Your task to perform on an android device: When is my next meeting? Image 0: 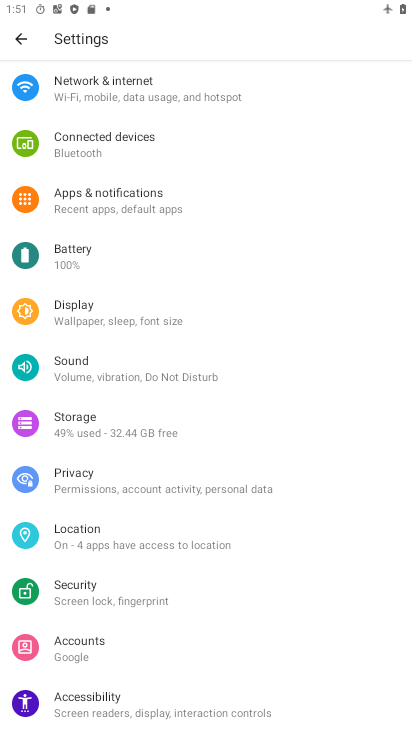
Step 0: press home button
Your task to perform on an android device: When is my next meeting? Image 1: 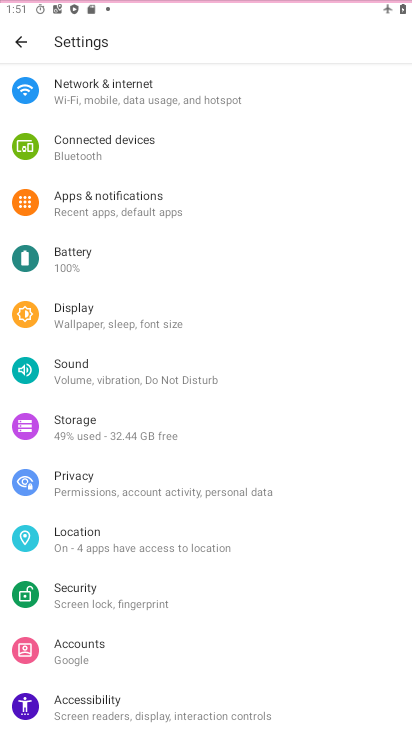
Step 1: drag from (78, 553) to (275, 154)
Your task to perform on an android device: When is my next meeting? Image 2: 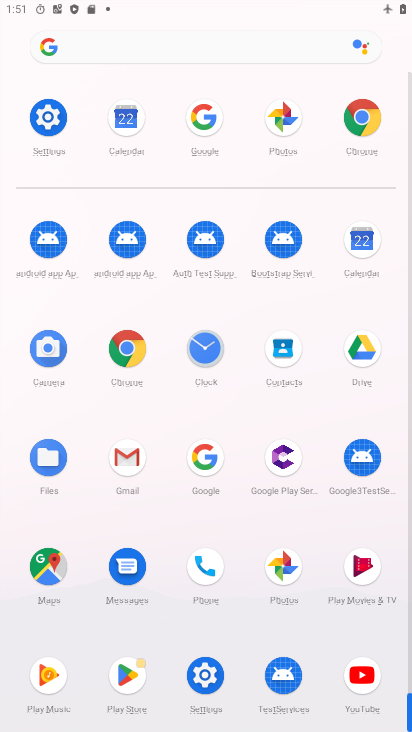
Step 2: click (360, 235)
Your task to perform on an android device: When is my next meeting? Image 3: 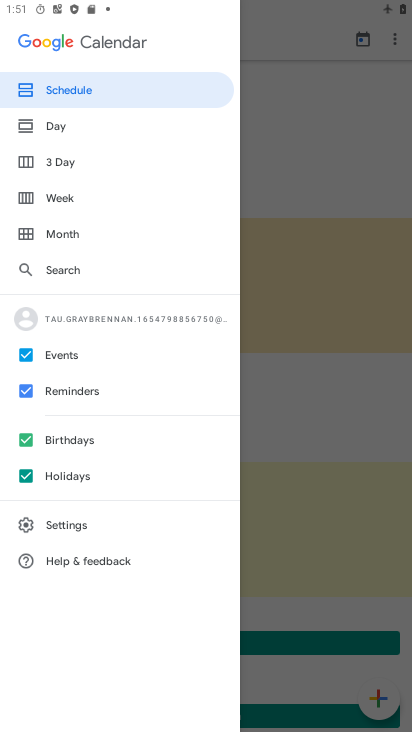
Step 3: click (321, 123)
Your task to perform on an android device: When is my next meeting? Image 4: 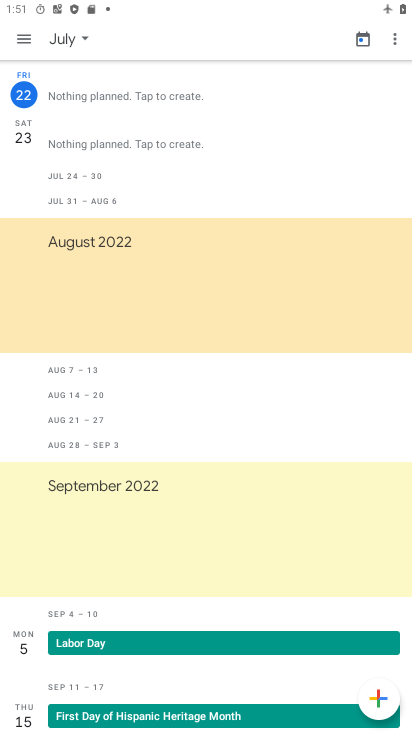
Step 4: click (354, 31)
Your task to perform on an android device: When is my next meeting? Image 5: 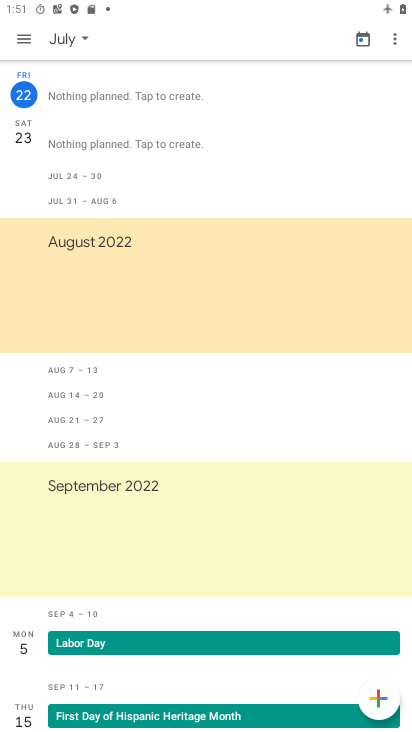
Step 5: click (78, 39)
Your task to perform on an android device: When is my next meeting? Image 6: 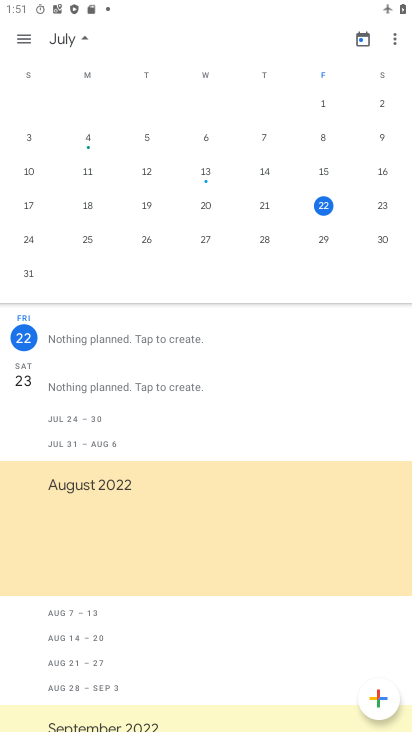
Step 6: click (321, 202)
Your task to perform on an android device: When is my next meeting? Image 7: 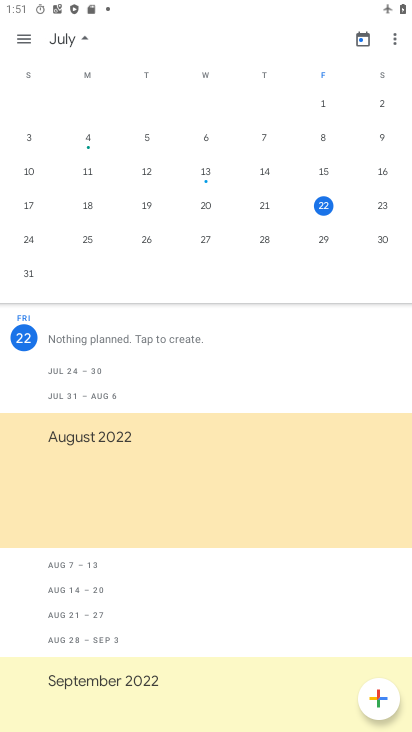
Step 7: task complete